Your task to perform on an android device: add a label to a message in the gmail app Image 0: 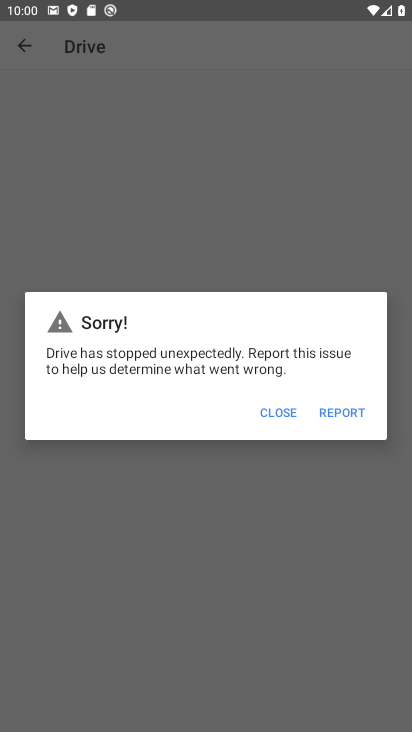
Step 0: press home button
Your task to perform on an android device: add a label to a message in the gmail app Image 1: 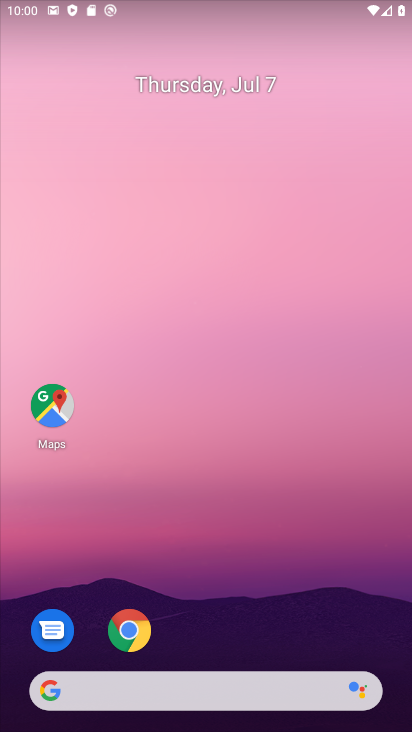
Step 1: drag from (30, 695) to (258, 0)
Your task to perform on an android device: add a label to a message in the gmail app Image 2: 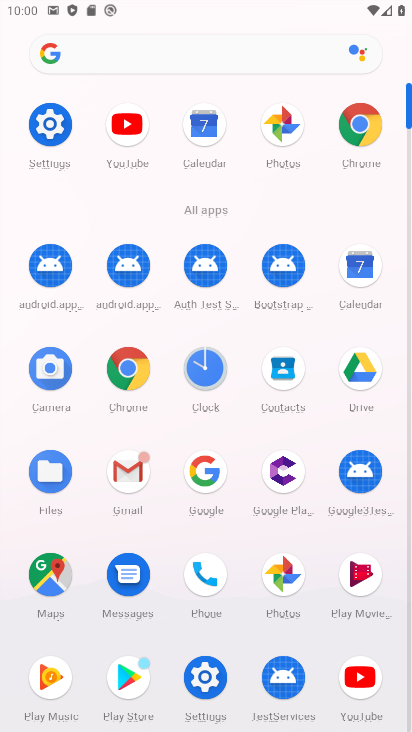
Step 2: click (144, 447)
Your task to perform on an android device: add a label to a message in the gmail app Image 3: 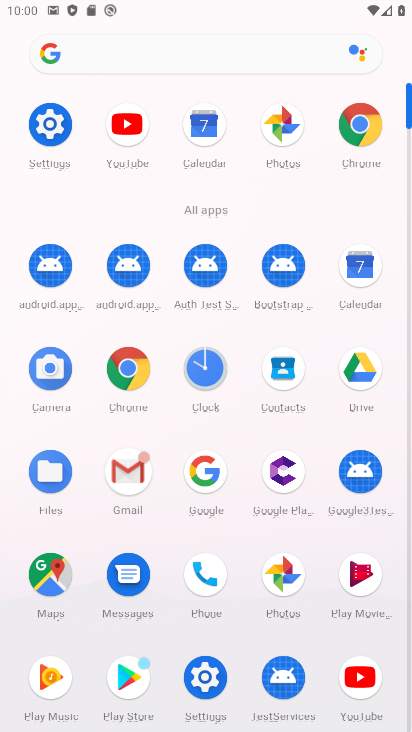
Step 3: click (119, 474)
Your task to perform on an android device: add a label to a message in the gmail app Image 4: 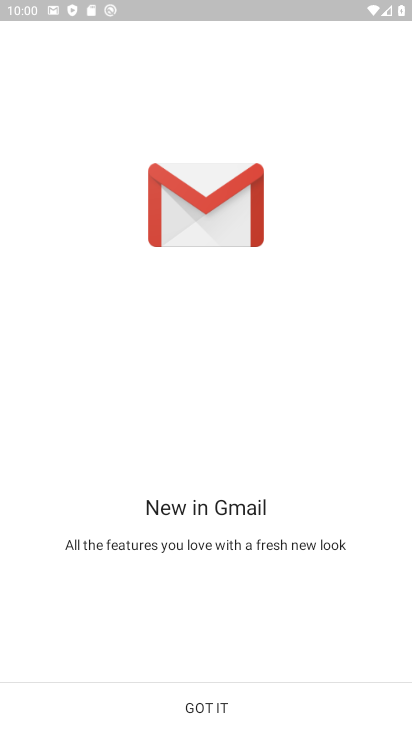
Step 4: click (173, 702)
Your task to perform on an android device: add a label to a message in the gmail app Image 5: 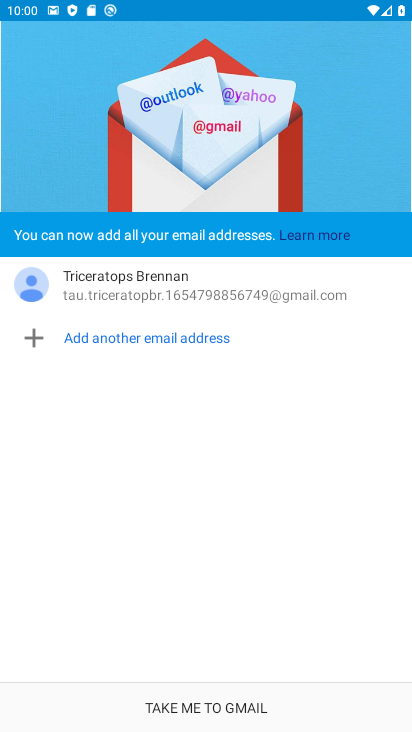
Step 5: click (178, 709)
Your task to perform on an android device: add a label to a message in the gmail app Image 6: 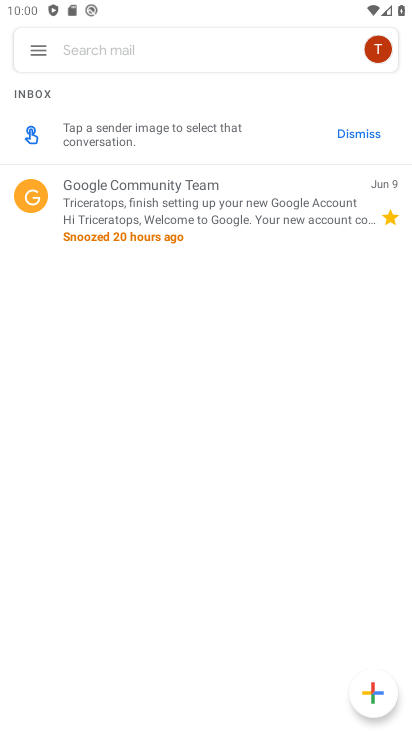
Step 6: click (41, 49)
Your task to perform on an android device: add a label to a message in the gmail app Image 7: 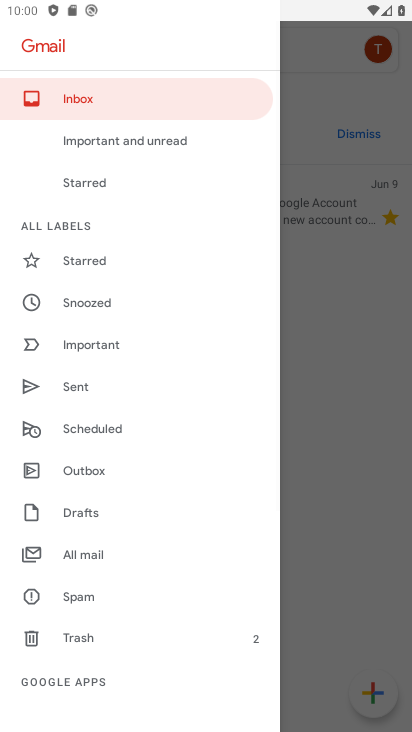
Step 7: click (90, 101)
Your task to perform on an android device: add a label to a message in the gmail app Image 8: 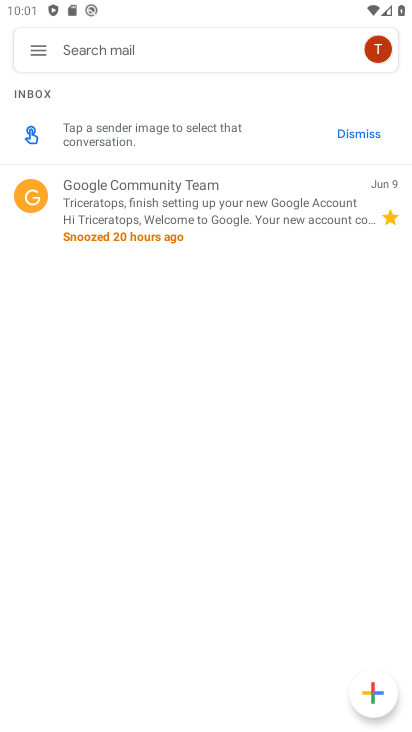
Step 8: task complete